Your task to perform on an android device: What's on my calendar tomorrow? Image 0: 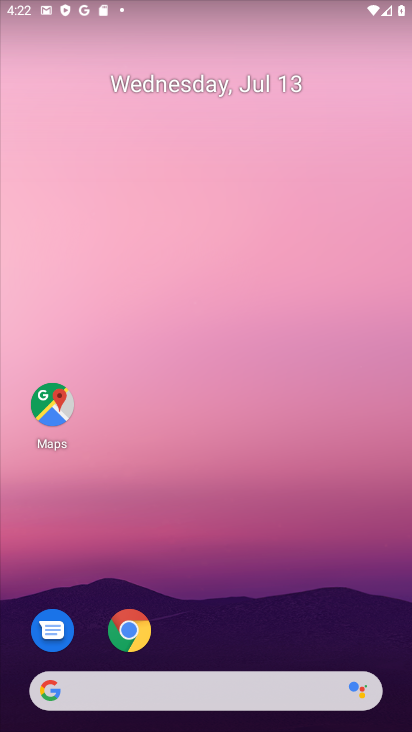
Step 0: drag from (260, 616) to (251, 41)
Your task to perform on an android device: What's on my calendar tomorrow? Image 1: 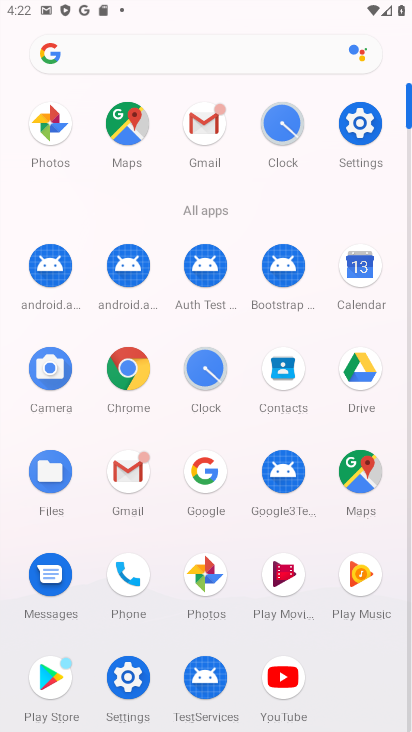
Step 1: click (361, 256)
Your task to perform on an android device: What's on my calendar tomorrow? Image 2: 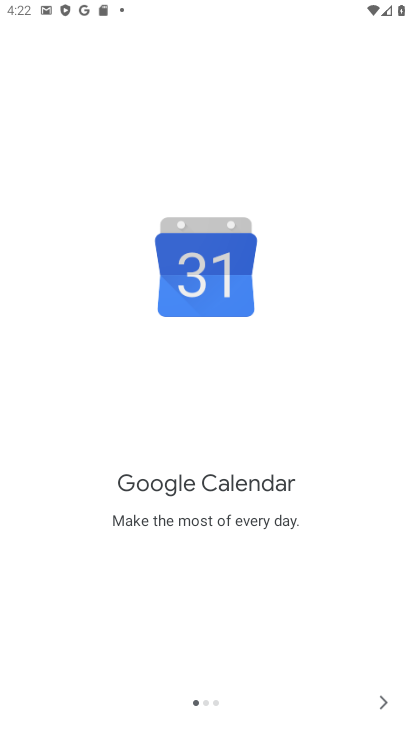
Step 2: click (375, 688)
Your task to perform on an android device: What's on my calendar tomorrow? Image 3: 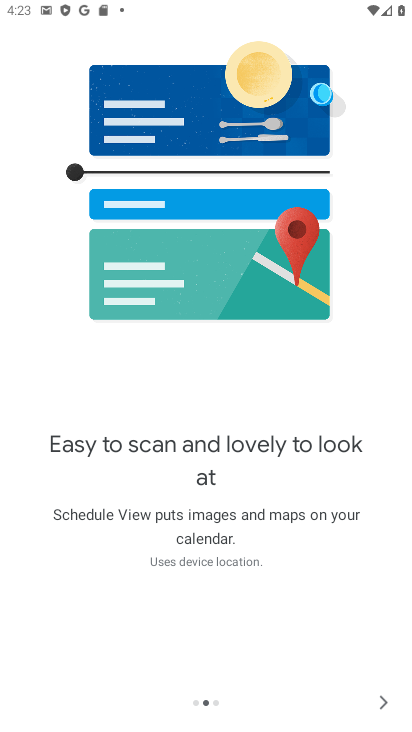
Step 3: click (382, 691)
Your task to perform on an android device: What's on my calendar tomorrow? Image 4: 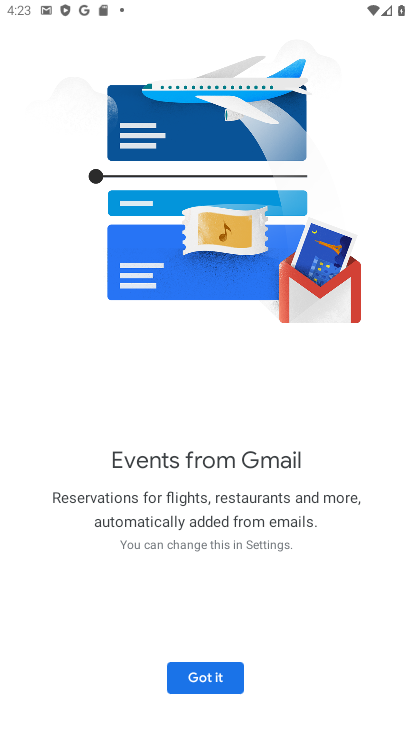
Step 4: click (227, 672)
Your task to perform on an android device: What's on my calendar tomorrow? Image 5: 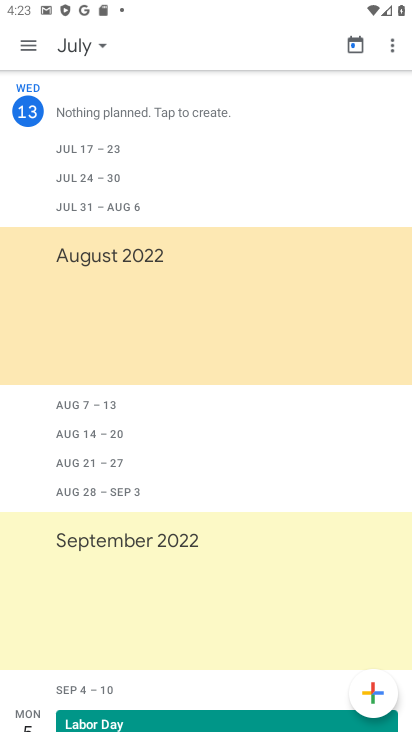
Step 5: click (99, 39)
Your task to perform on an android device: What's on my calendar tomorrow? Image 6: 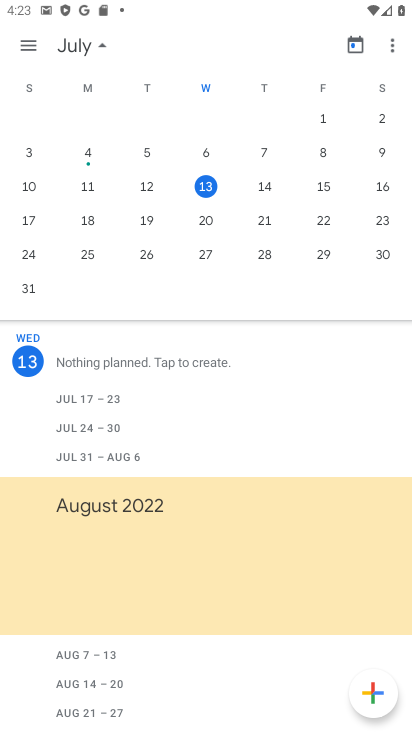
Step 6: click (270, 179)
Your task to perform on an android device: What's on my calendar tomorrow? Image 7: 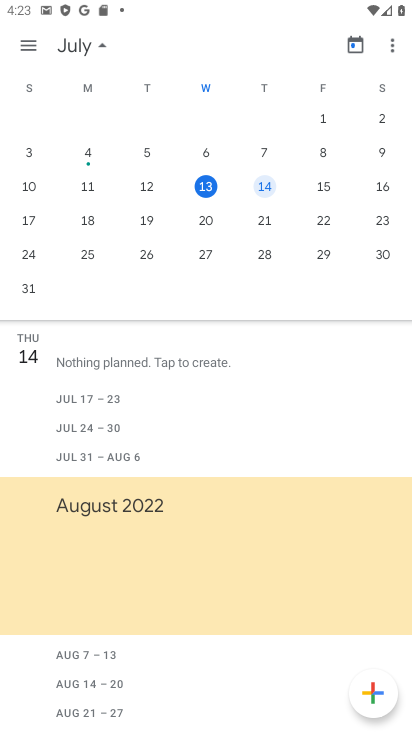
Step 7: task complete